Your task to perform on an android device: What's the weather going to be this weekend? Image 0: 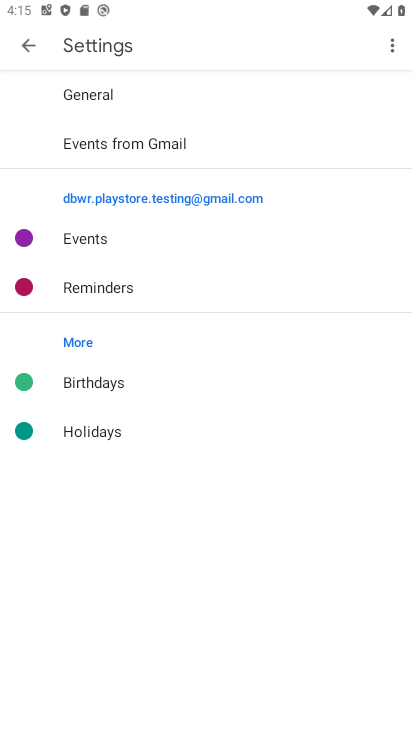
Step 0: press back button
Your task to perform on an android device: What's the weather going to be this weekend? Image 1: 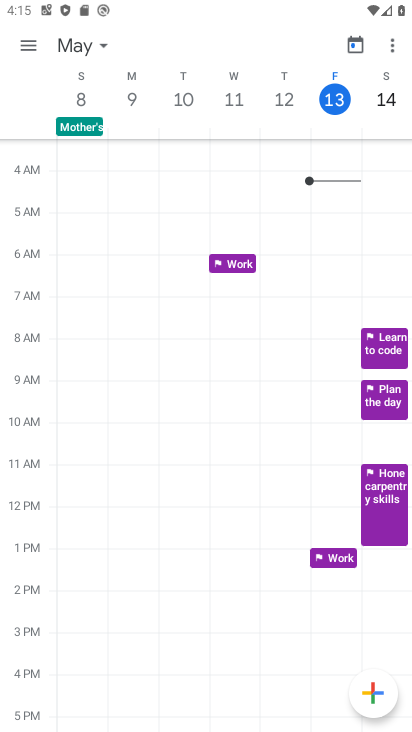
Step 1: press back button
Your task to perform on an android device: What's the weather going to be this weekend? Image 2: 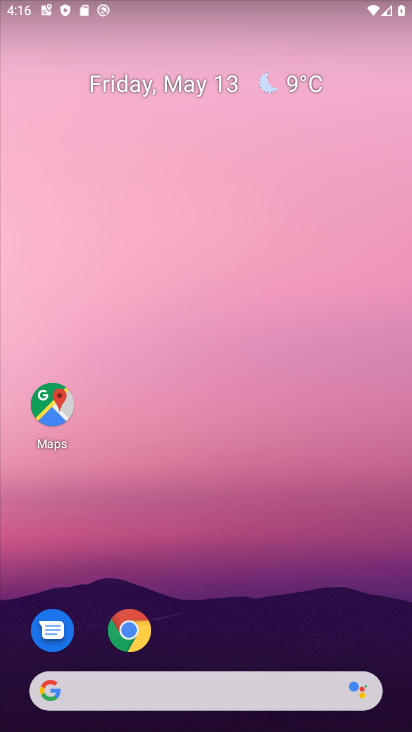
Step 2: click (129, 630)
Your task to perform on an android device: What's the weather going to be this weekend? Image 3: 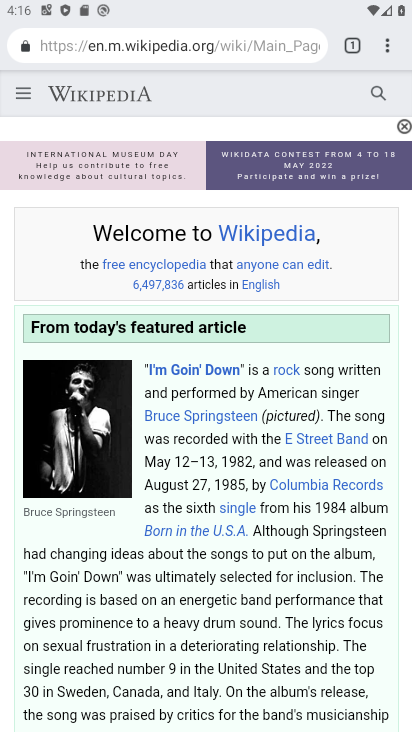
Step 3: click (150, 40)
Your task to perform on an android device: What's the weather going to be this weekend? Image 4: 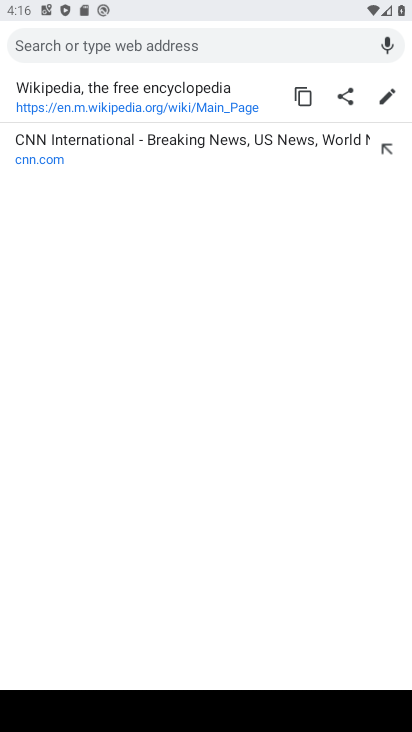
Step 4: type "What's the weather going to be this weekend?"
Your task to perform on an android device: What's the weather going to be this weekend? Image 5: 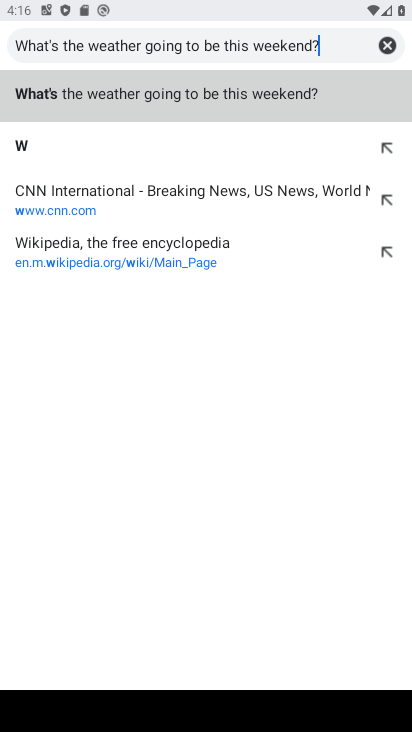
Step 5: type ""
Your task to perform on an android device: What's the weather going to be this weekend? Image 6: 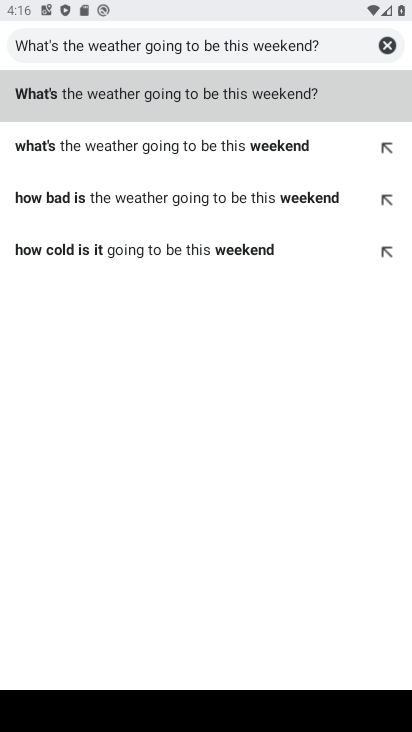
Step 6: click (206, 88)
Your task to perform on an android device: What's the weather going to be this weekend? Image 7: 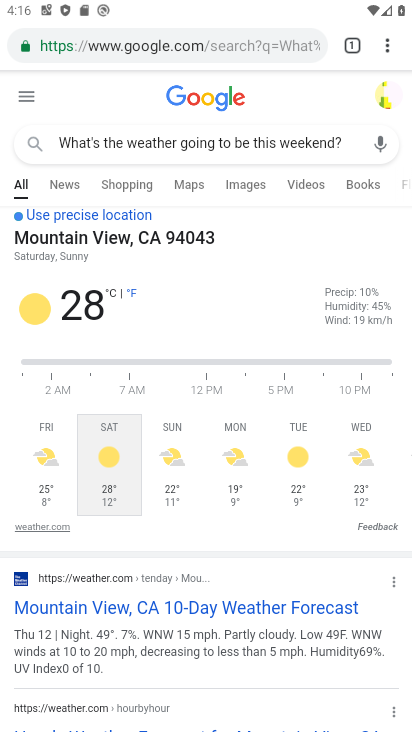
Step 7: task complete